Your task to perform on an android device: turn pop-ups off in chrome Image 0: 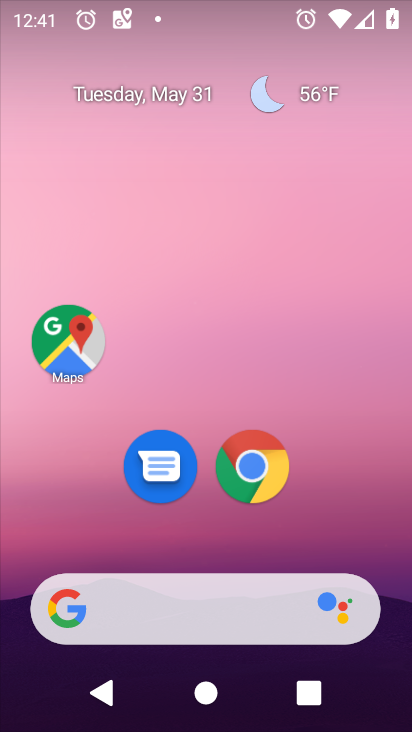
Step 0: click (259, 473)
Your task to perform on an android device: turn pop-ups off in chrome Image 1: 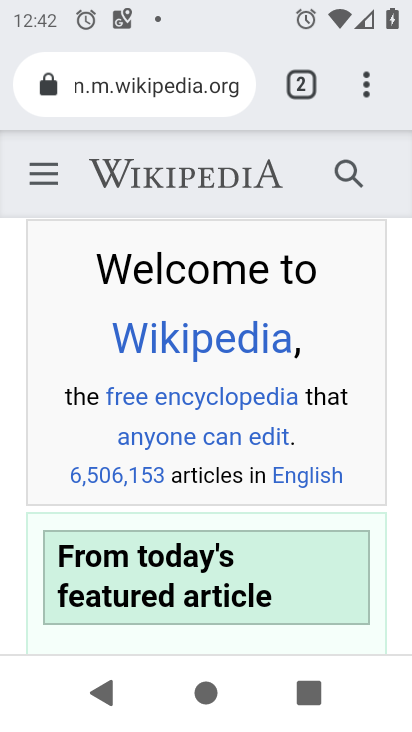
Step 1: drag from (369, 87) to (120, 507)
Your task to perform on an android device: turn pop-ups off in chrome Image 2: 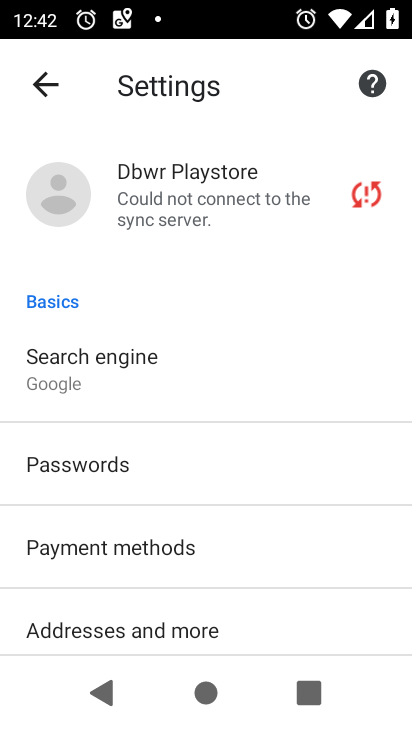
Step 2: drag from (129, 559) to (123, 27)
Your task to perform on an android device: turn pop-ups off in chrome Image 3: 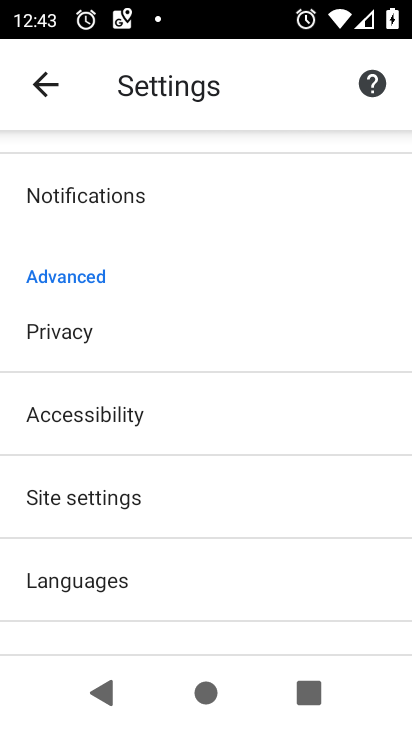
Step 3: click (150, 489)
Your task to perform on an android device: turn pop-ups off in chrome Image 4: 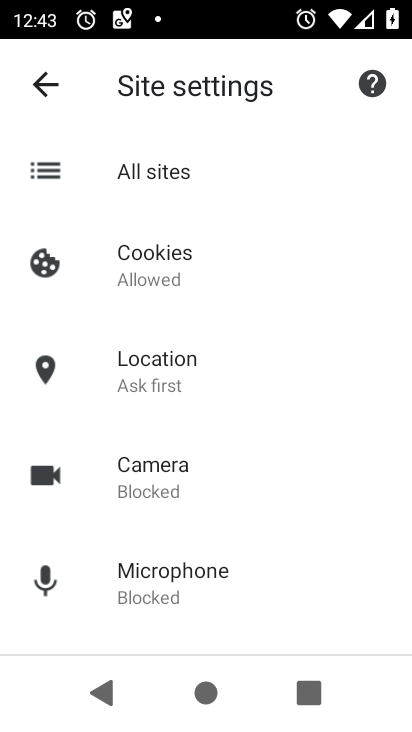
Step 4: drag from (204, 596) to (210, 69)
Your task to perform on an android device: turn pop-ups off in chrome Image 5: 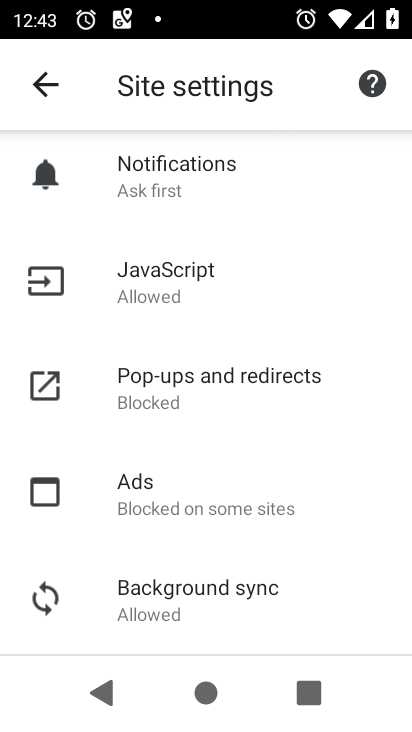
Step 5: click (152, 377)
Your task to perform on an android device: turn pop-ups off in chrome Image 6: 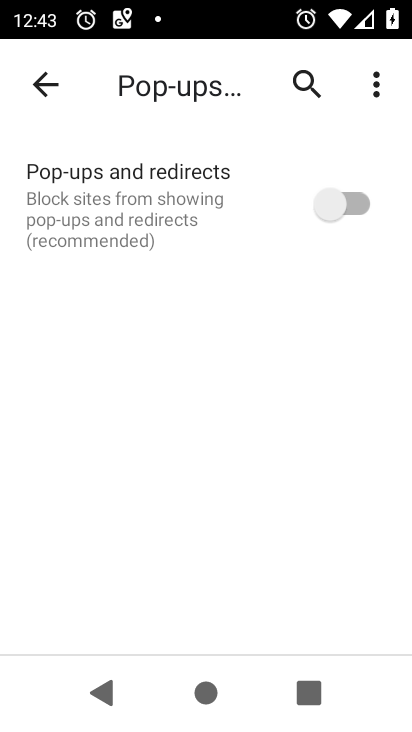
Step 6: task complete